Your task to perform on an android device: change the clock display to digital Image 0: 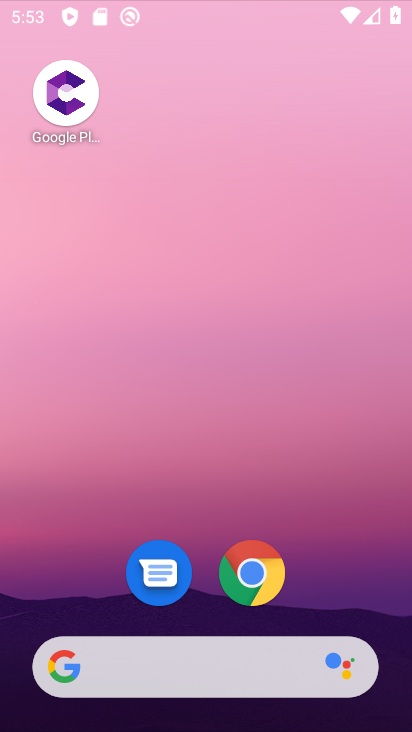
Step 0: press home button
Your task to perform on an android device: change the clock display to digital Image 1: 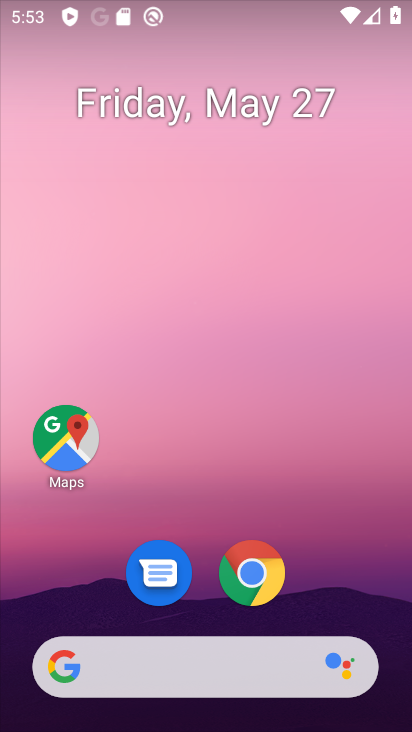
Step 1: drag from (208, 607) to (230, 46)
Your task to perform on an android device: change the clock display to digital Image 2: 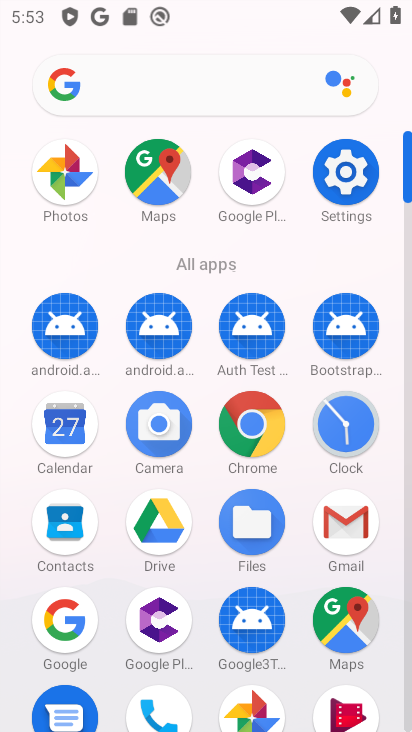
Step 2: click (346, 414)
Your task to perform on an android device: change the clock display to digital Image 3: 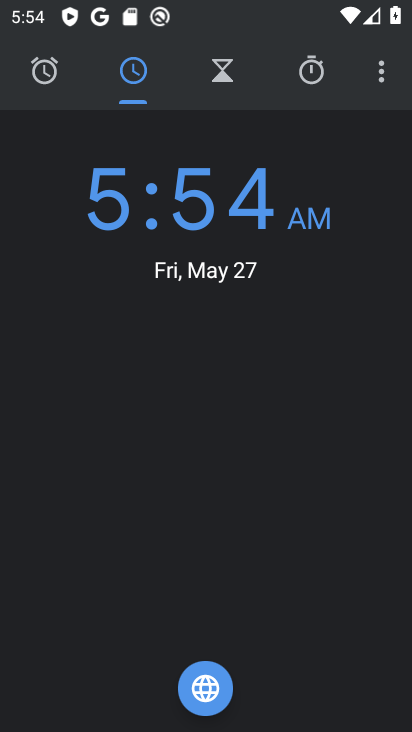
Step 3: click (369, 75)
Your task to perform on an android device: change the clock display to digital Image 4: 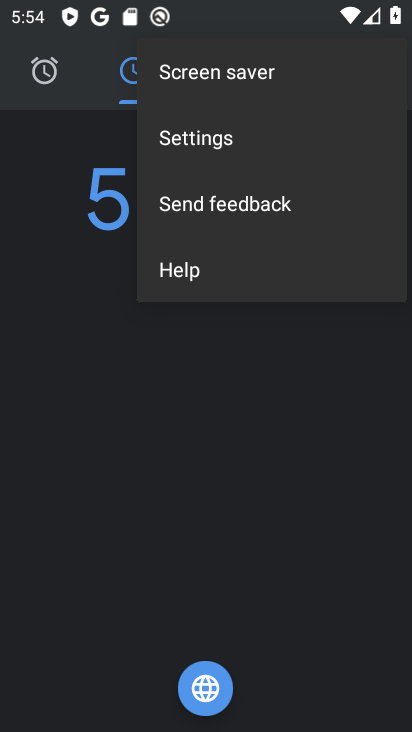
Step 4: click (249, 131)
Your task to perform on an android device: change the clock display to digital Image 5: 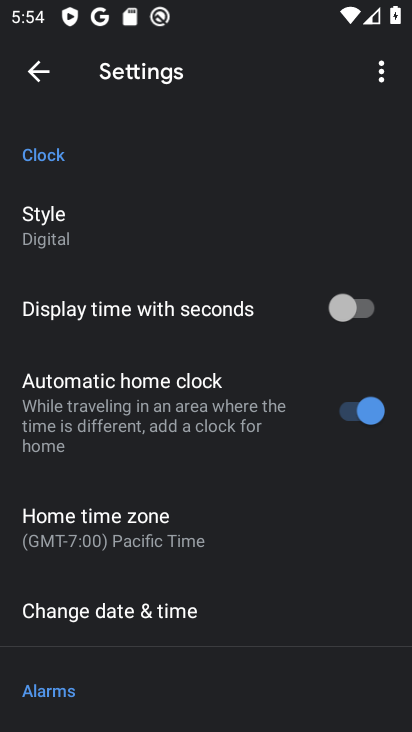
Step 5: click (115, 220)
Your task to perform on an android device: change the clock display to digital Image 6: 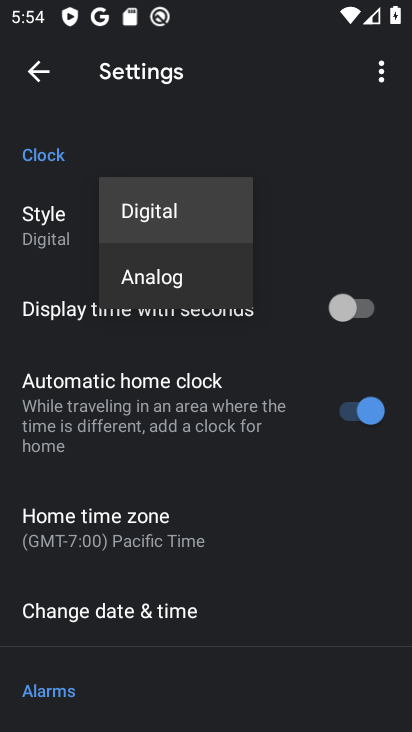
Step 6: click (164, 221)
Your task to perform on an android device: change the clock display to digital Image 7: 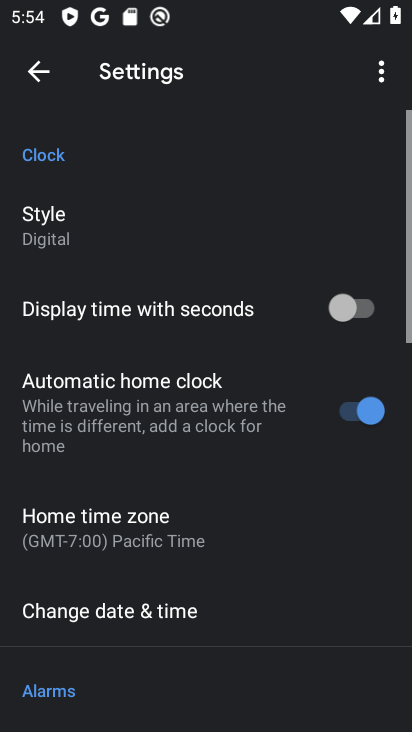
Step 7: task complete